Your task to perform on an android device: open app "Google Docs" (install if not already installed) Image 0: 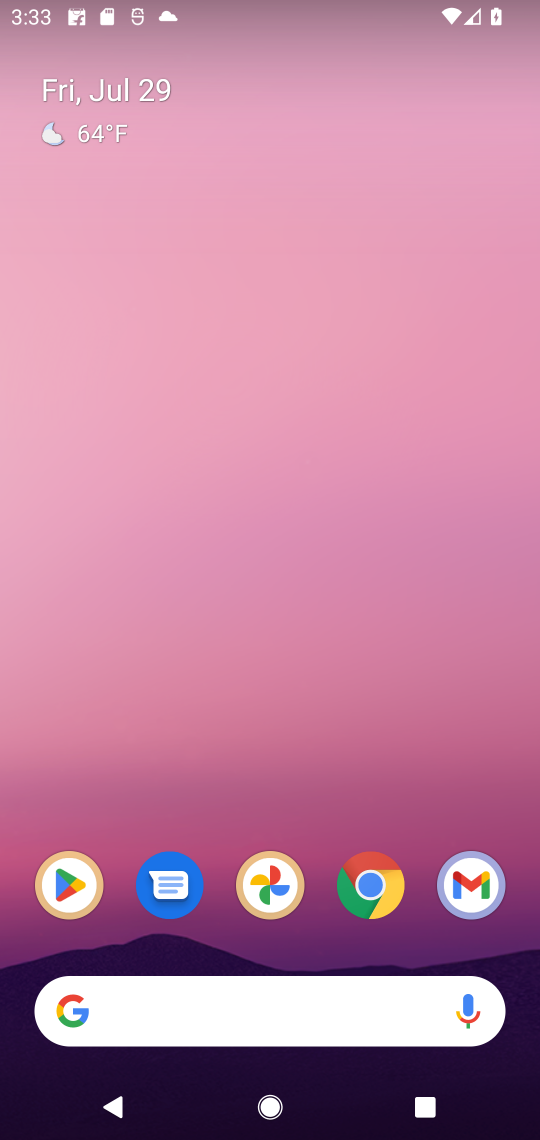
Step 0: click (82, 898)
Your task to perform on an android device: open app "Google Docs" (install if not already installed) Image 1: 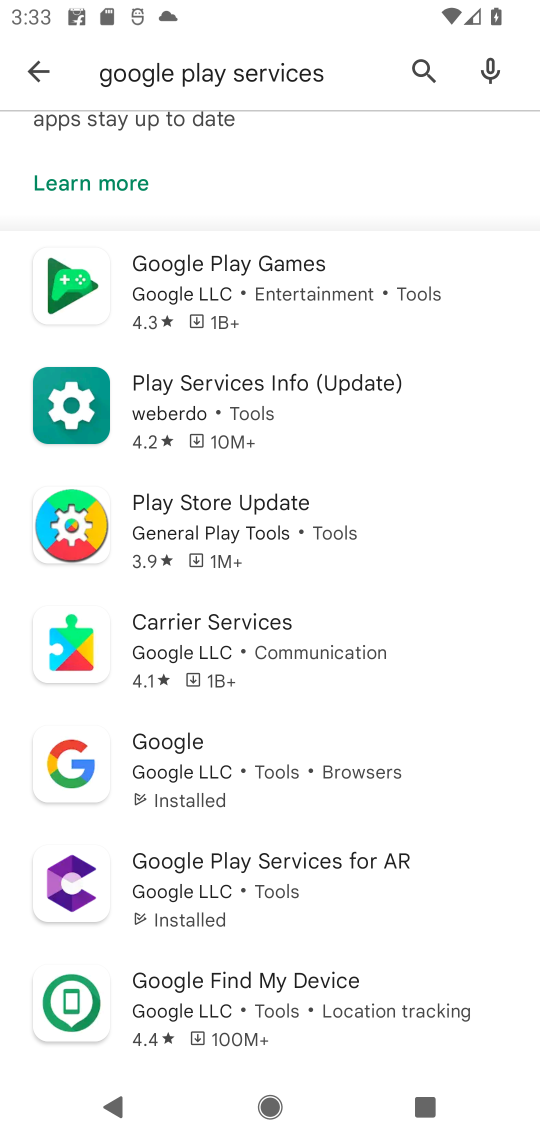
Step 1: click (425, 79)
Your task to perform on an android device: open app "Google Docs" (install if not already installed) Image 2: 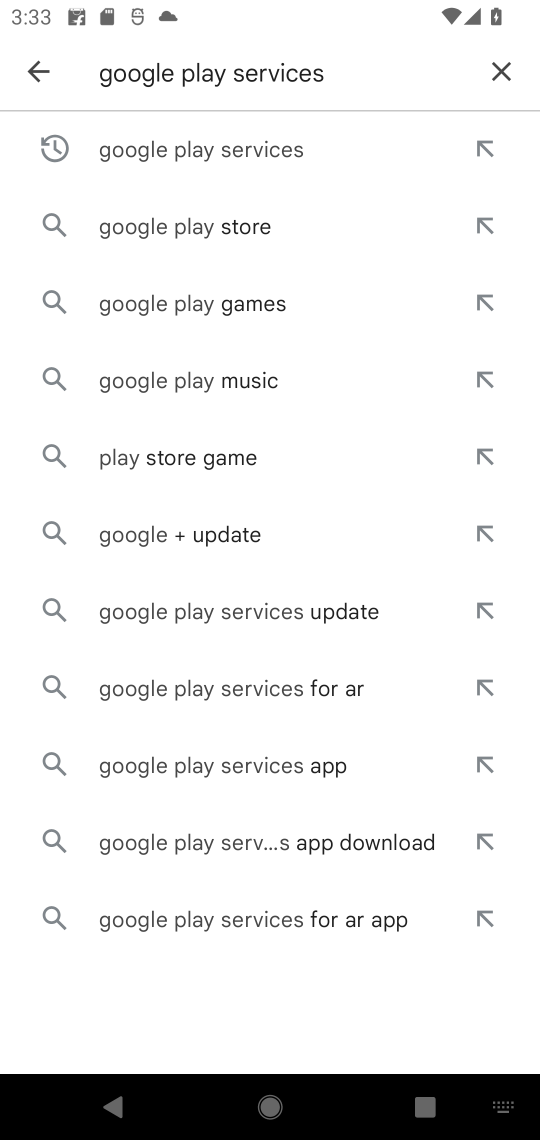
Step 2: click (506, 77)
Your task to perform on an android device: open app "Google Docs" (install if not already installed) Image 3: 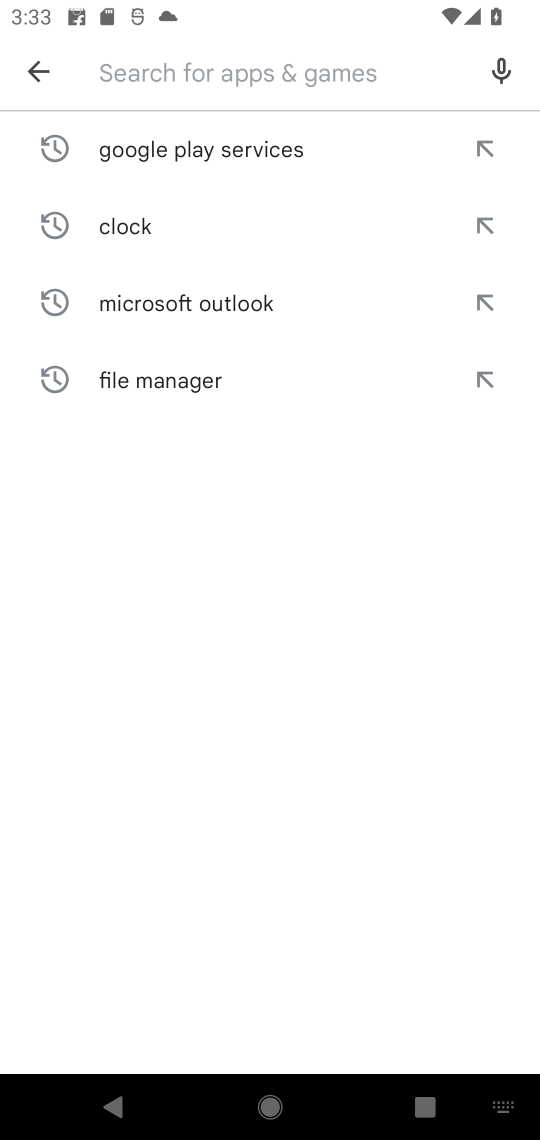
Step 3: click (326, 67)
Your task to perform on an android device: open app "Google Docs" (install if not already installed) Image 4: 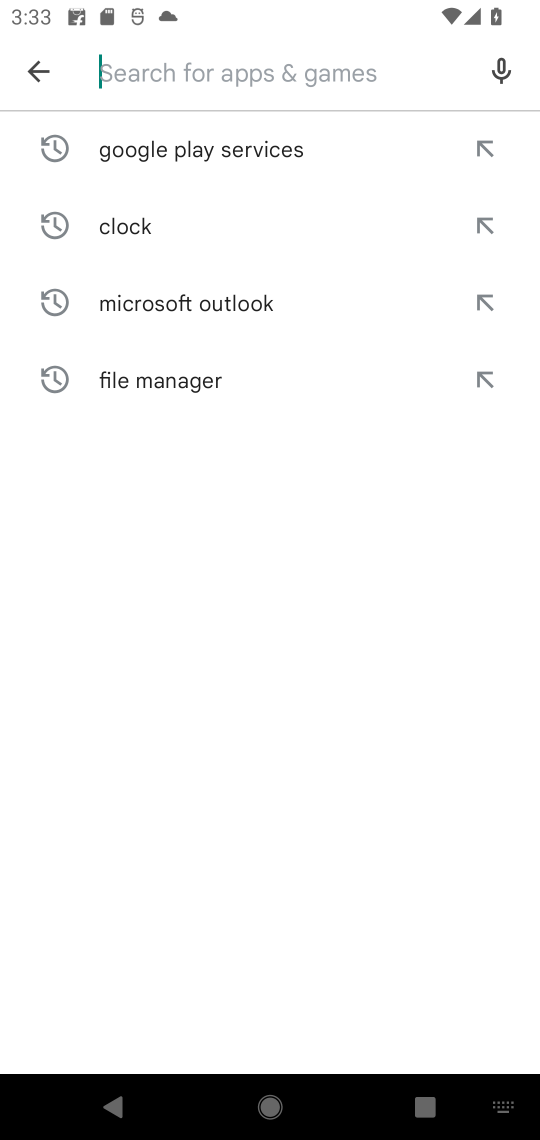
Step 4: type "Google Docs"
Your task to perform on an android device: open app "Google Docs" (install if not already installed) Image 5: 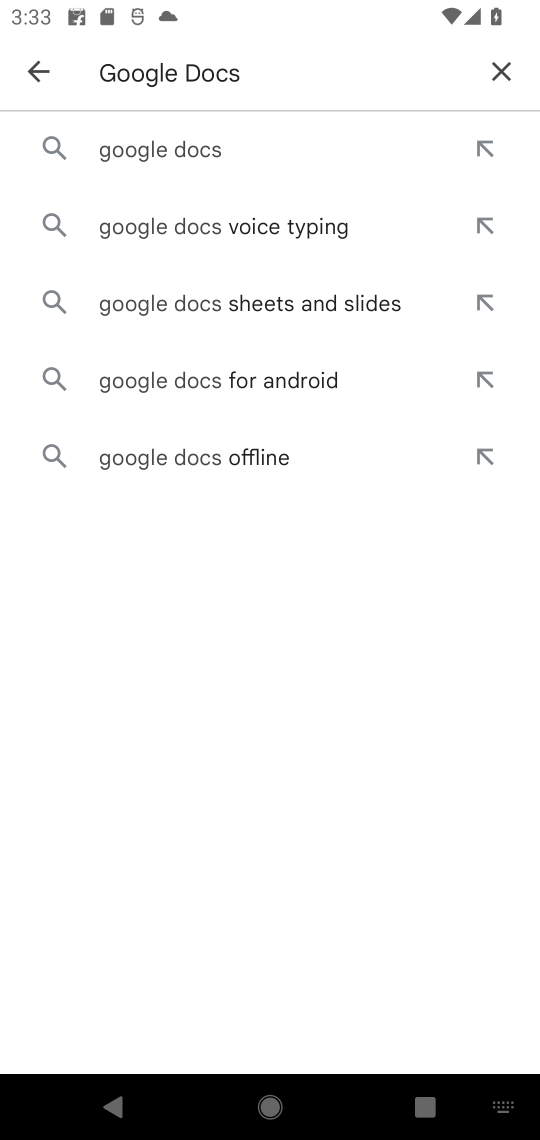
Step 5: click (171, 143)
Your task to perform on an android device: open app "Google Docs" (install if not already installed) Image 6: 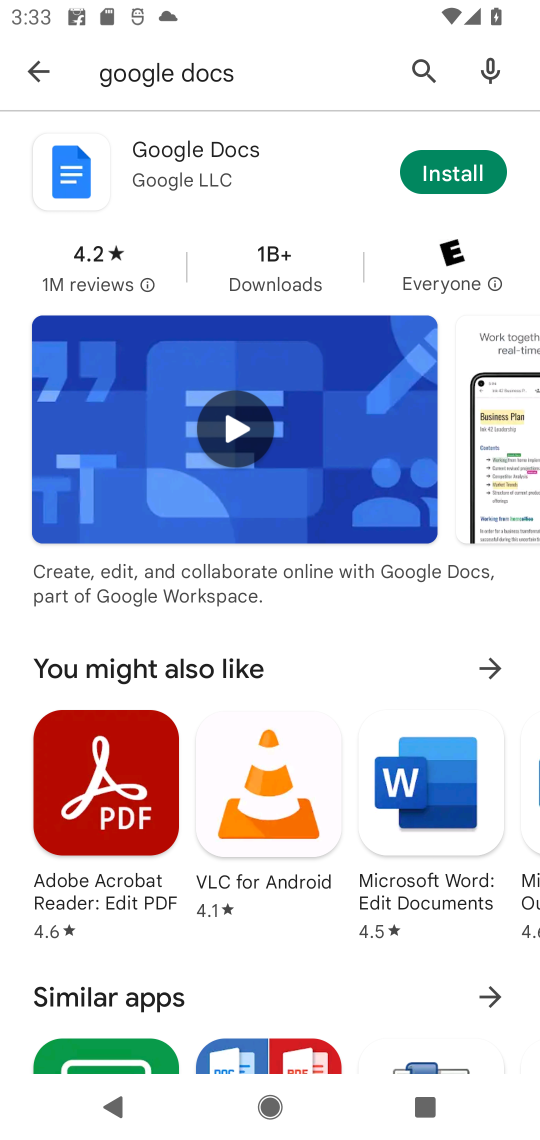
Step 6: click (459, 180)
Your task to perform on an android device: open app "Google Docs" (install if not already installed) Image 7: 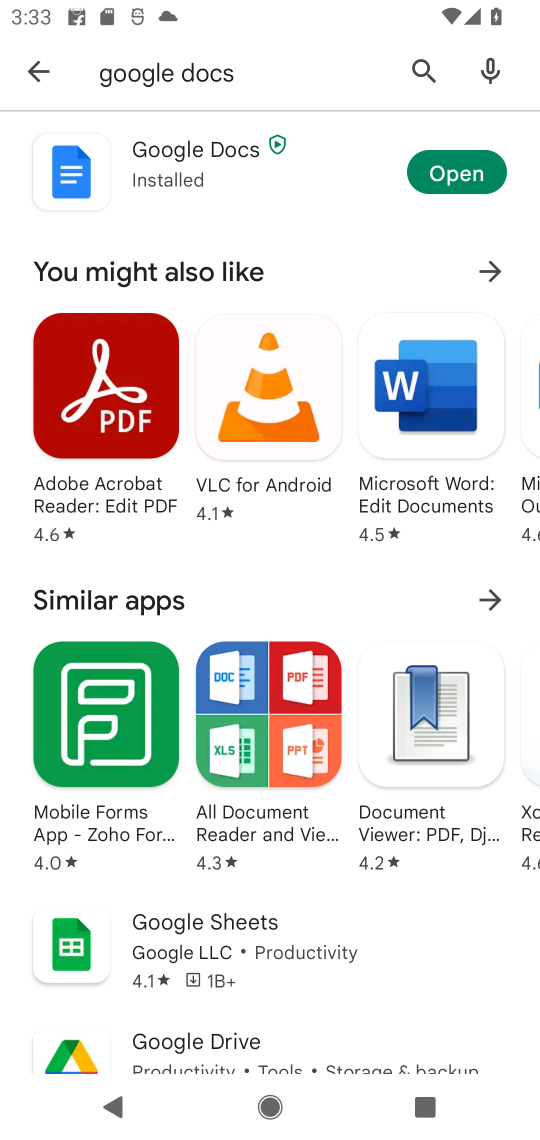
Step 7: click (459, 180)
Your task to perform on an android device: open app "Google Docs" (install if not already installed) Image 8: 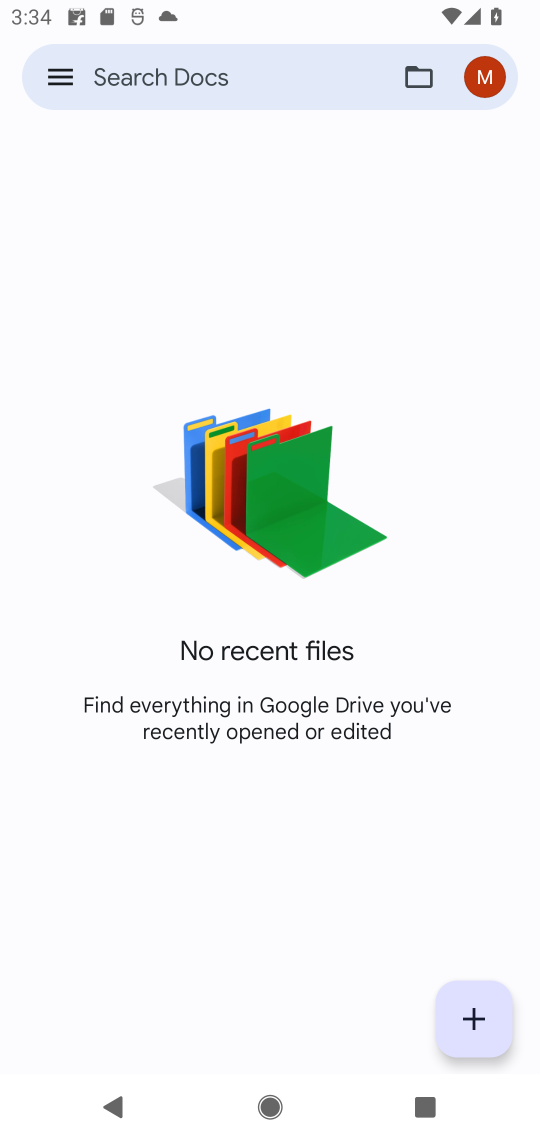
Step 8: task complete